Your task to perform on an android device: Go to Reddit.com Image 0: 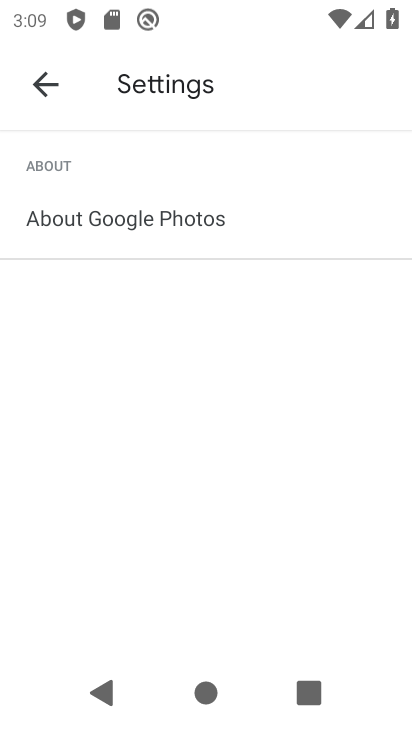
Step 0: press home button
Your task to perform on an android device: Go to Reddit.com Image 1: 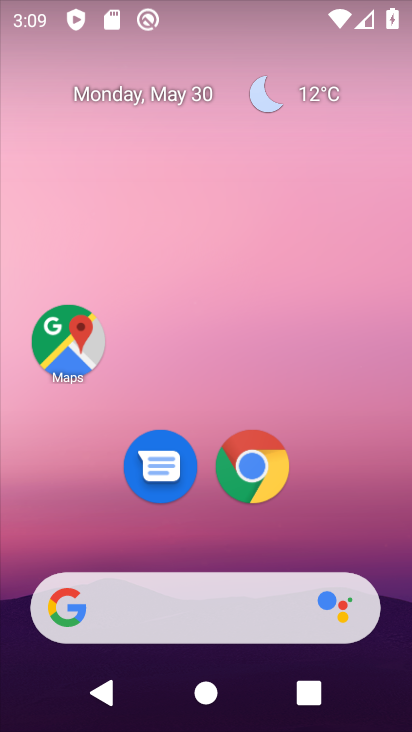
Step 1: click (278, 461)
Your task to perform on an android device: Go to Reddit.com Image 2: 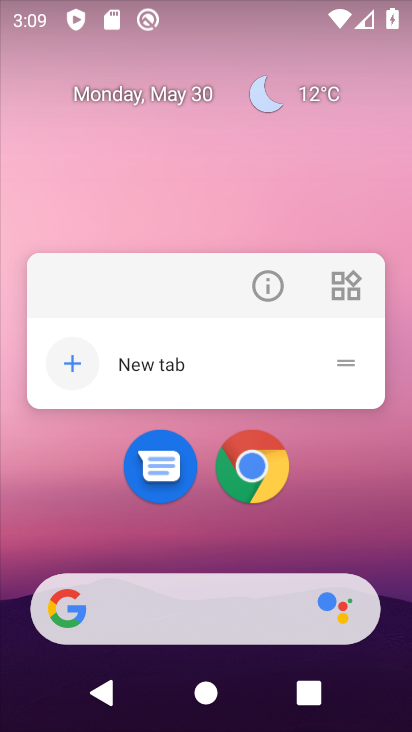
Step 2: click (266, 449)
Your task to perform on an android device: Go to Reddit.com Image 3: 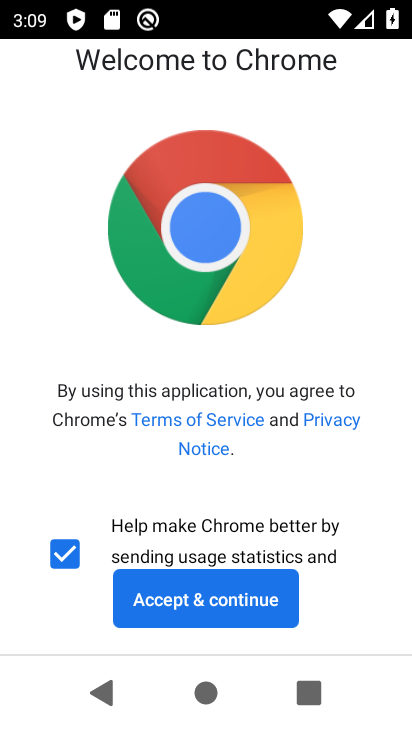
Step 3: click (275, 592)
Your task to perform on an android device: Go to Reddit.com Image 4: 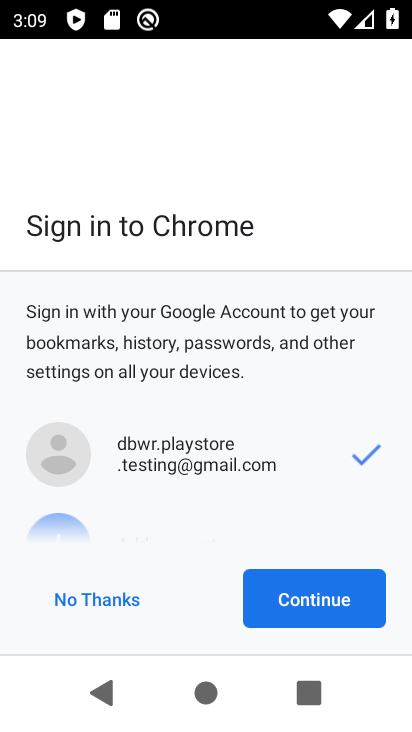
Step 4: click (275, 592)
Your task to perform on an android device: Go to Reddit.com Image 5: 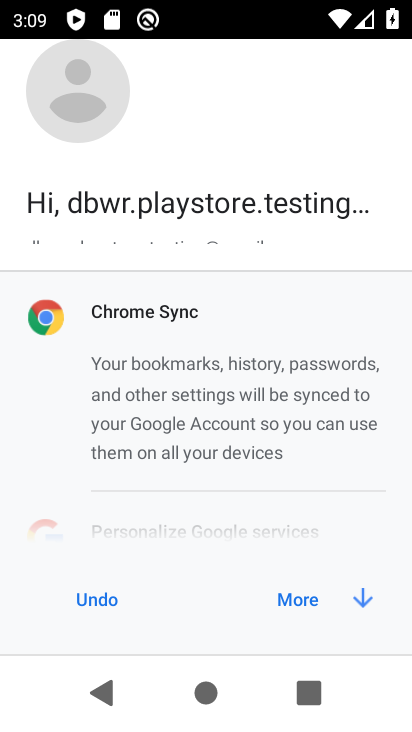
Step 5: click (275, 592)
Your task to perform on an android device: Go to Reddit.com Image 6: 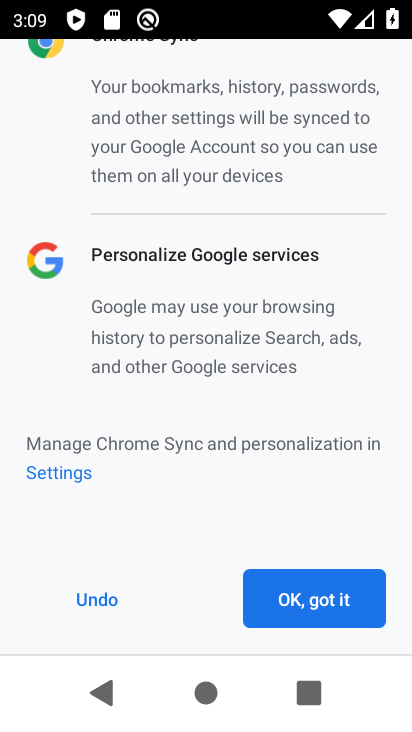
Step 6: click (275, 592)
Your task to perform on an android device: Go to Reddit.com Image 7: 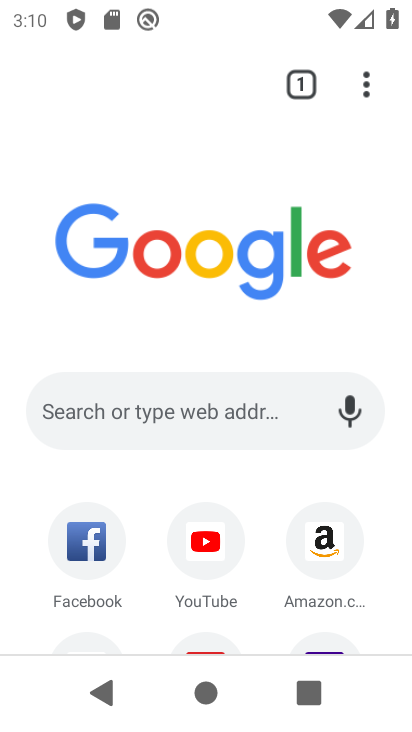
Step 7: click (240, 385)
Your task to perform on an android device: Go to Reddit.com Image 8: 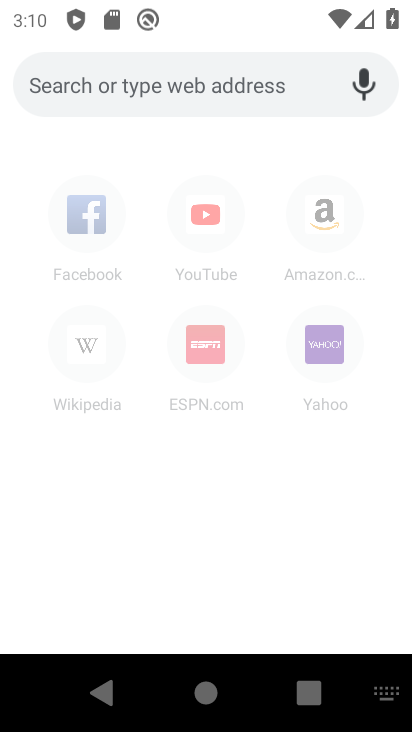
Step 8: type "reddit"
Your task to perform on an android device: Go to Reddit.com Image 9: 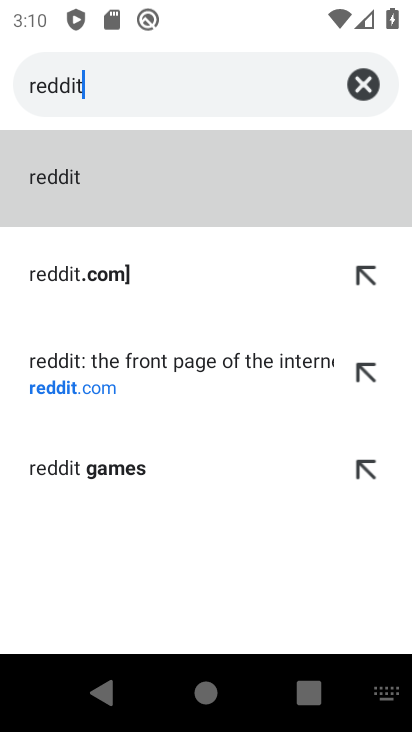
Step 9: click (96, 356)
Your task to perform on an android device: Go to Reddit.com Image 10: 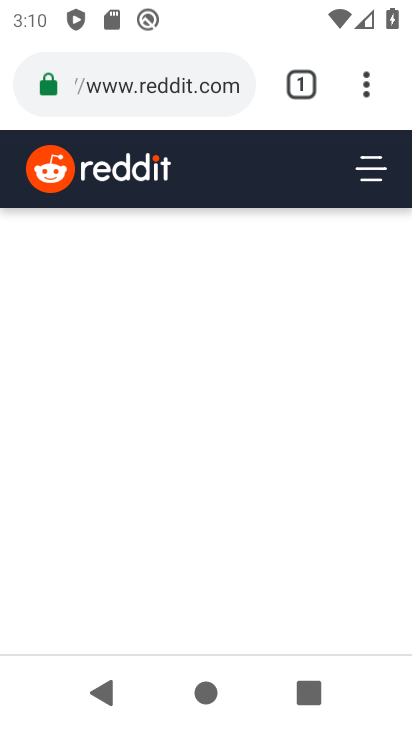
Step 10: task complete